Your task to perform on an android device: refresh tabs in the chrome app Image 0: 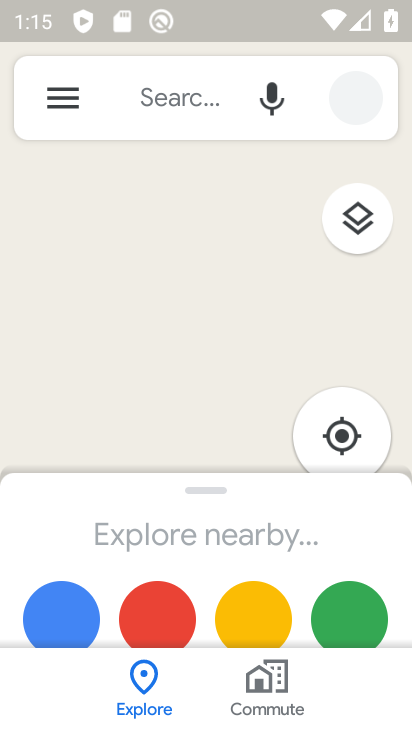
Step 0: press home button
Your task to perform on an android device: refresh tabs in the chrome app Image 1: 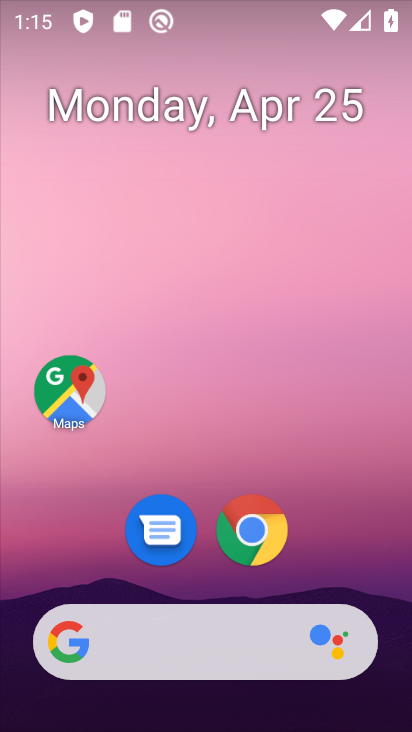
Step 1: drag from (390, 548) to (368, 141)
Your task to perform on an android device: refresh tabs in the chrome app Image 2: 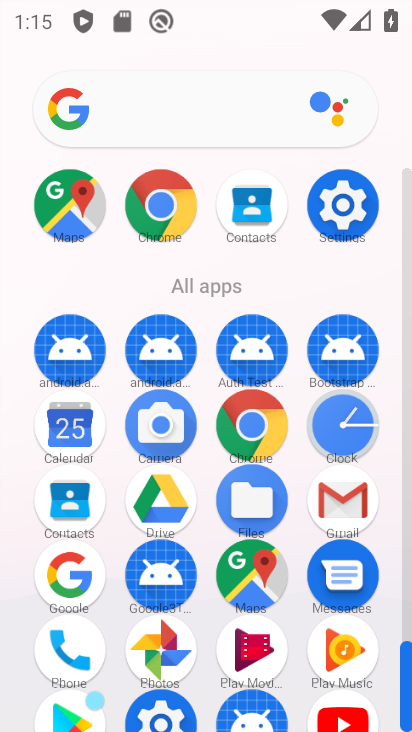
Step 2: click (264, 437)
Your task to perform on an android device: refresh tabs in the chrome app Image 3: 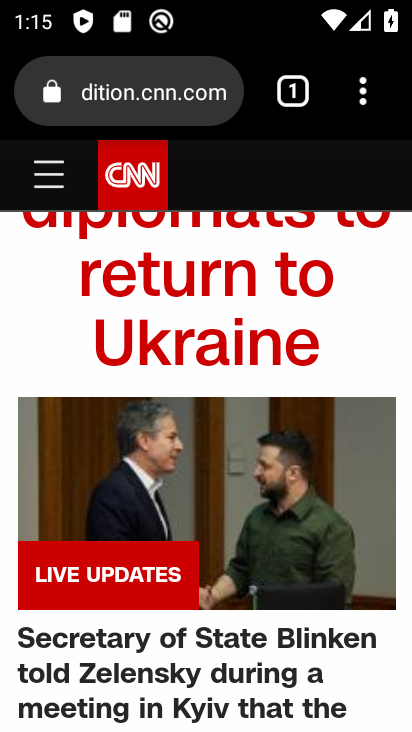
Step 3: click (312, 98)
Your task to perform on an android device: refresh tabs in the chrome app Image 4: 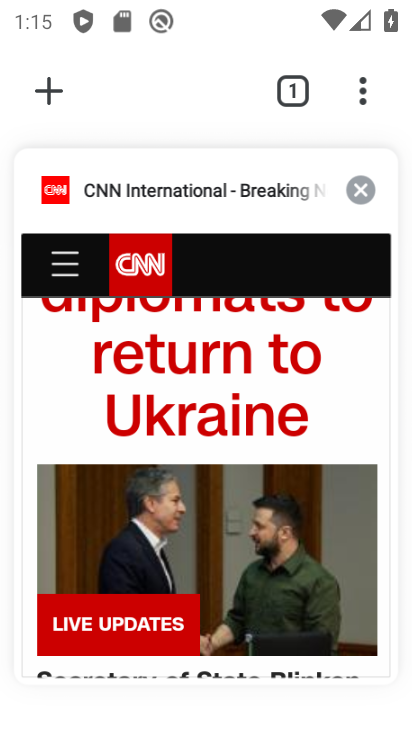
Step 4: click (42, 80)
Your task to perform on an android device: refresh tabs in the chrome app Image 5: 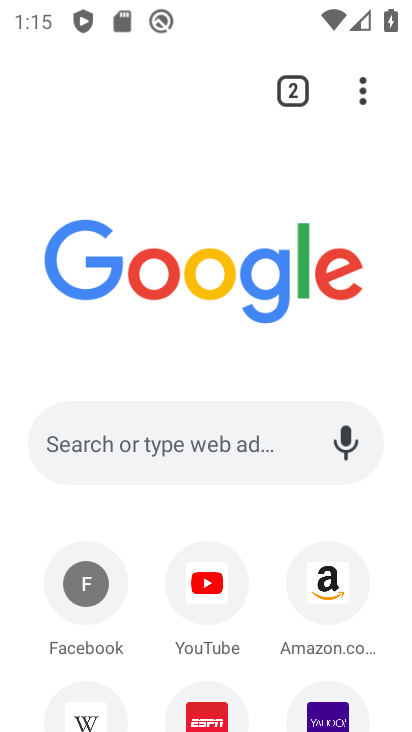
Step 5: task complete